Your task to perform on an android device: open app "NewsBreak: Local News & Alerts" (install if not already installed) and enter user name: "switch@outlook.com" and password: "fabrics" Image 0: 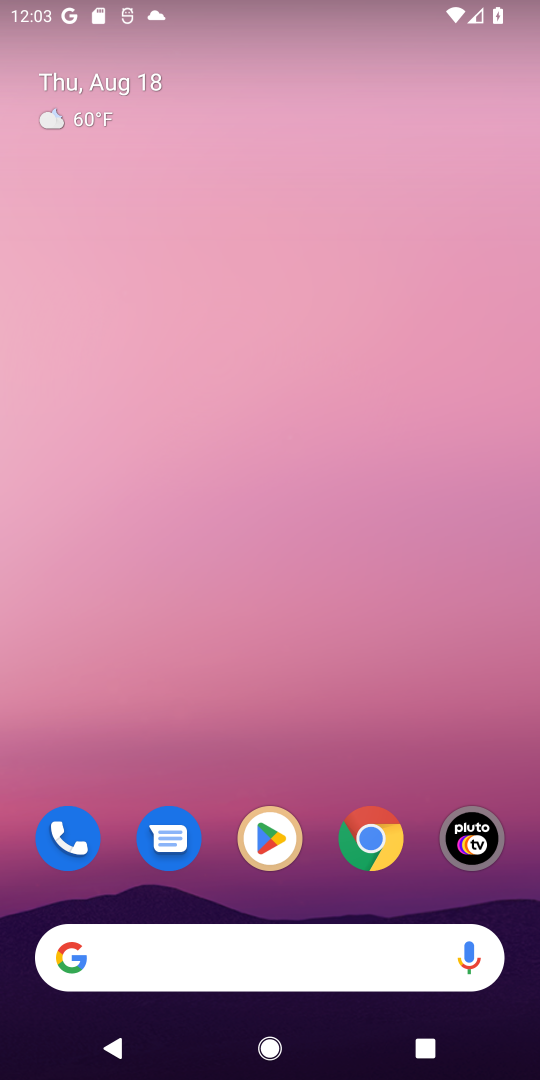
Step 0: click (277, 841)
Your task to perform on an android device: open app "NewsBreak: Local News & Alerts" (install if not already installed) and enter user name: "switch@outlook.com" and password: "fabrics" Image 1: 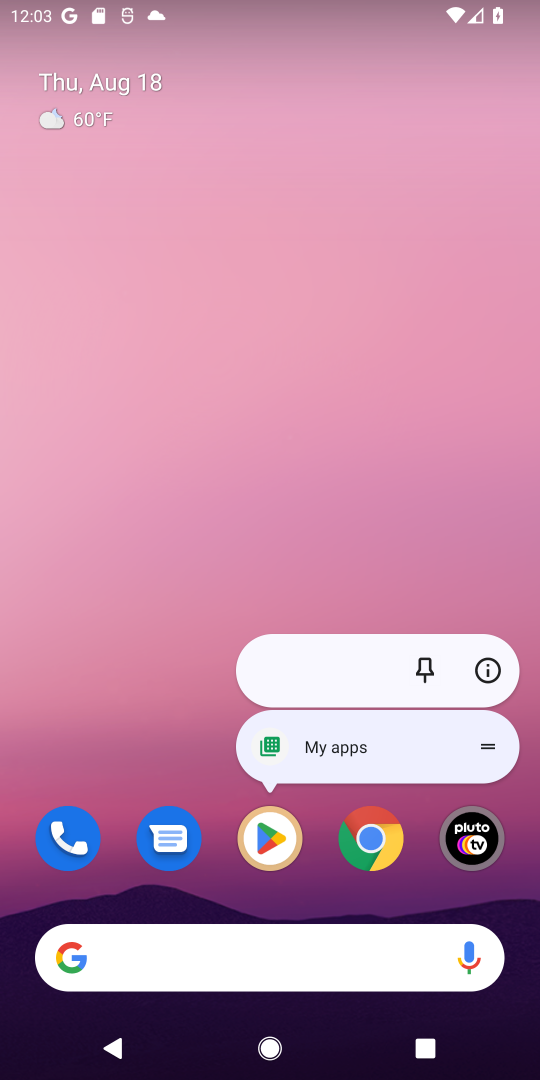
Step 1: click (277, 841)
Your task to perform on an android device: open app "NewsBreak: Local News & Alerts" (install if not already installed) and enter user name: "switch@outlook.com" and password: "fabrics" Image 2: 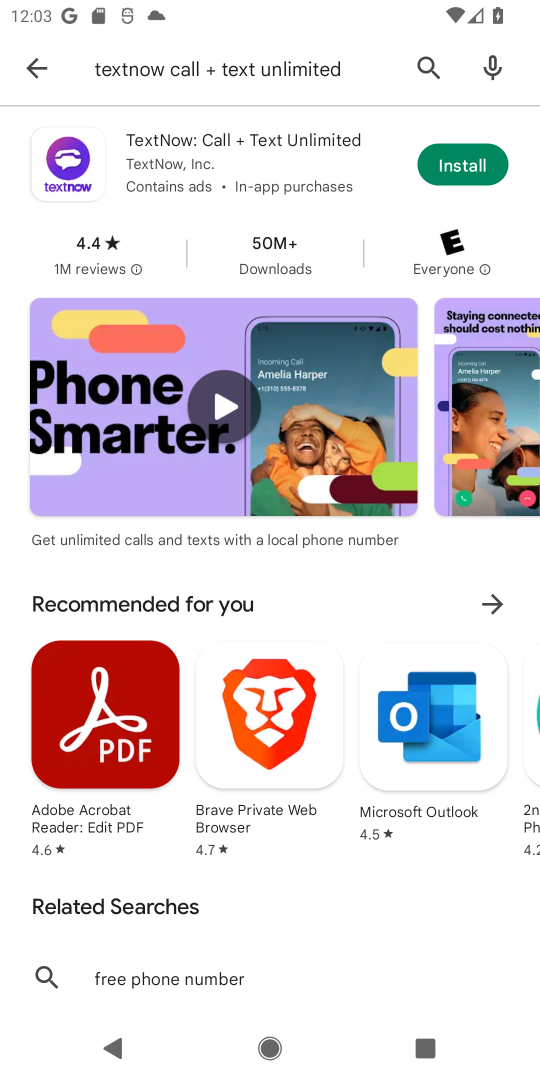
Step 2: click (425, 65)
Your task to perform on an android device: open app "NewsBreak: Local News & Alerts" (install if not already installed) and enter user name: "switch@outlook.com" and password: "fabrics" Image 3: 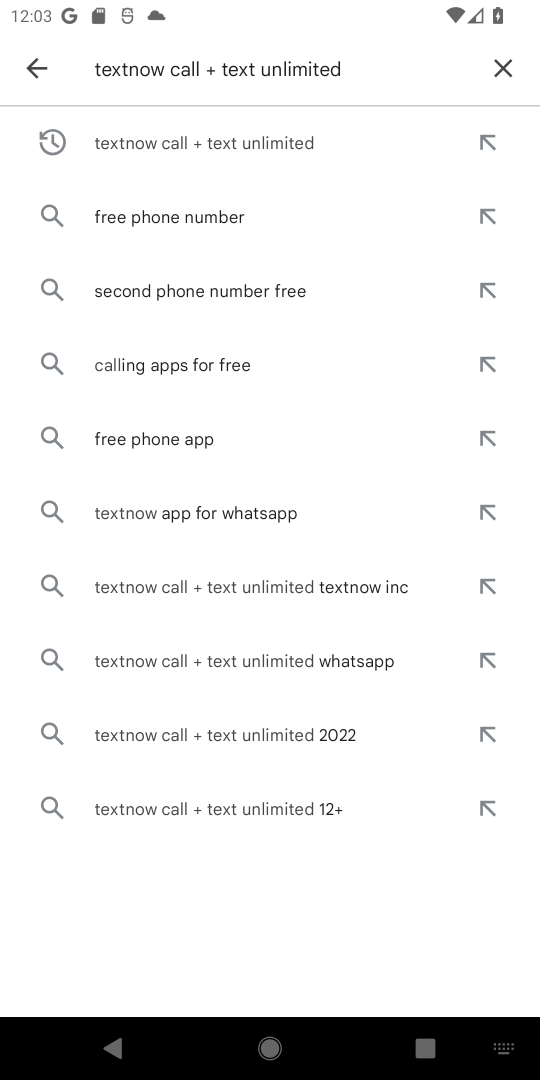
Step 3: click (495, 71)
Your task to perform on an android device: open app "NewsBreak: Local News & Alerts" (install if not already installed) and enter user name: "switch@outlook.com" and password: "fabrics" Image 4: 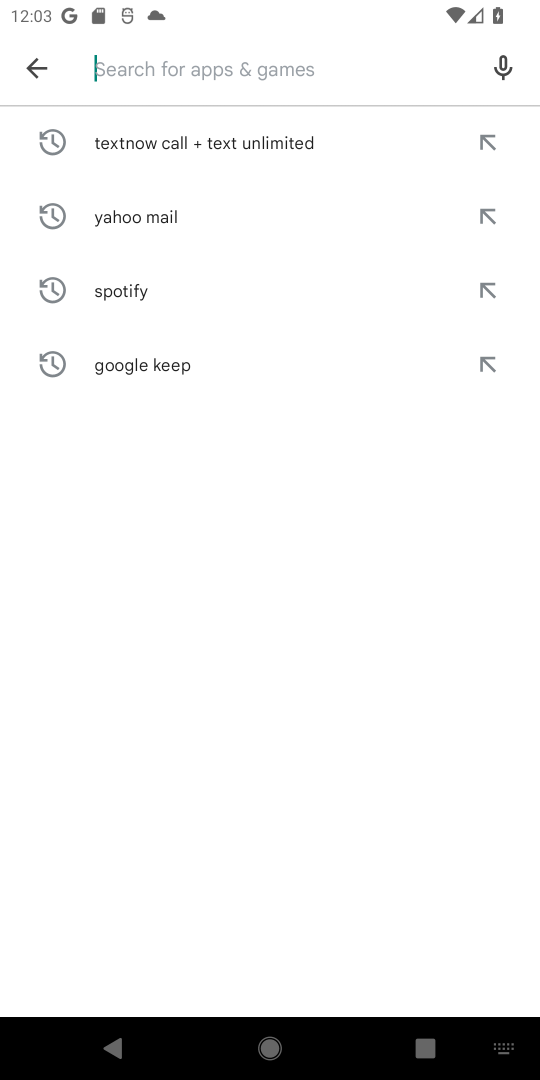
Step 4: type "NewsBreak: Local News & Alerts"
Your task to perform on an android device: open app "NewsBreak: Local News & Alerts" (install if not already installed) and enter user name: "switch@outlook.com" and password: "fabrics" Image 5: 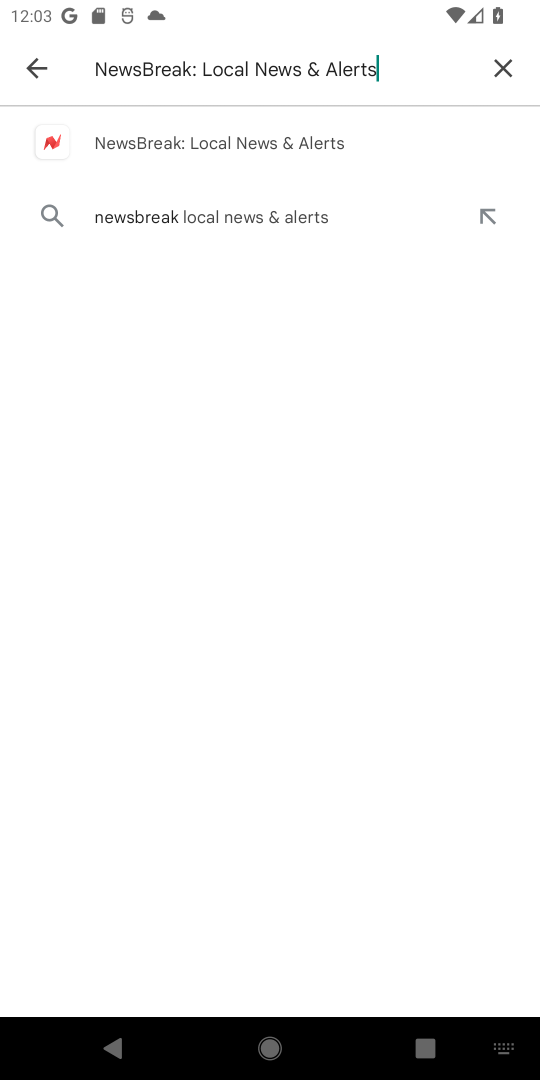
Step 5: click (270, 153)
Your task to perform on an android device: open app "NewsBreak: Local News & Alerts" (install if not already installed) and enter user name: "switch@outlook.com" and password: "fabrics" Image 6: 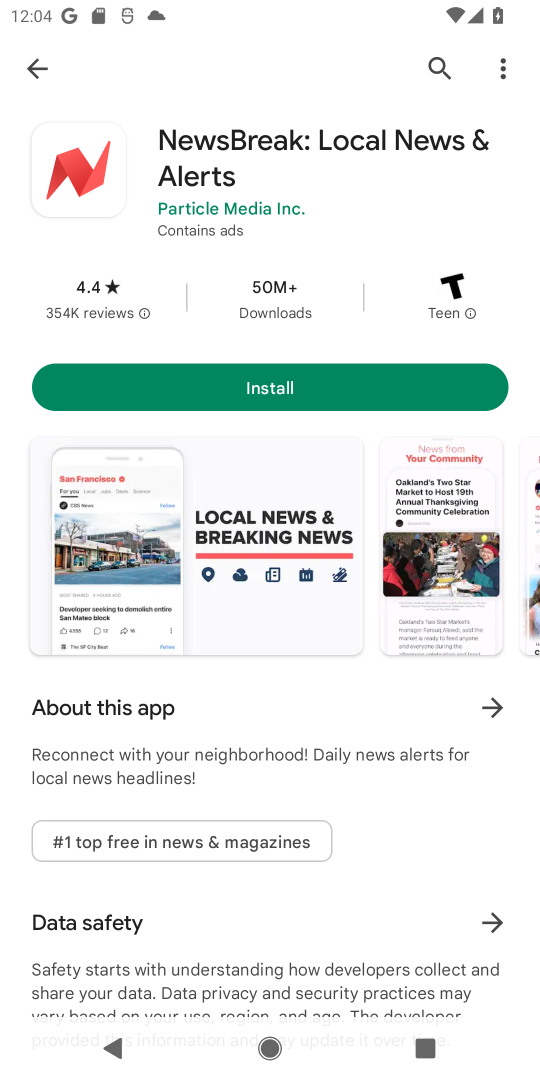
Step 6: click (256, 397)
Your task to perform on an android device: open app "NewsBreak: Local News & Alerts" (install if not already installed) and enter user name: "switch@outlook.com" and password: "fabrics" Image 7: 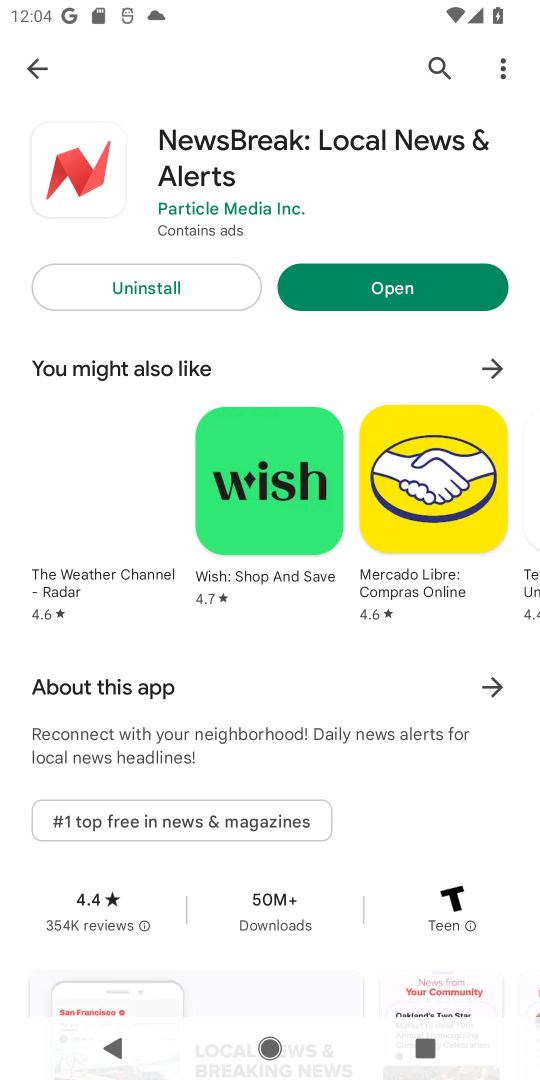
Step 7: click (379, 277)
Your task to perform on an android device: open app "NewsBreak: Local News & Alerts" (install if not already installed) and enter user name: "switch@outlook.com" and password: "fabrics" Image 8: 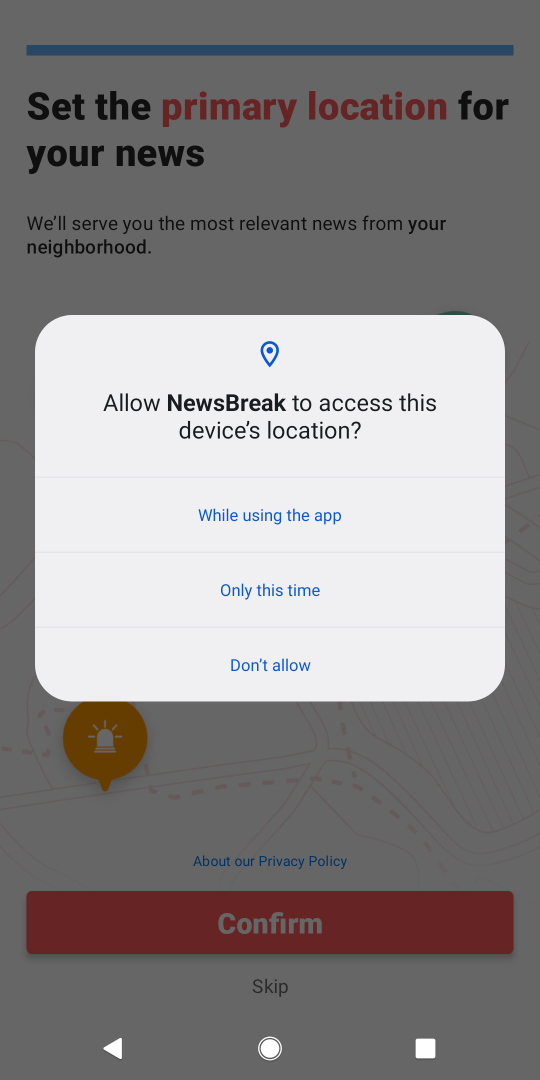
Step 8: task complete